Your task to perform on an android device: Go to eBay Image 0: 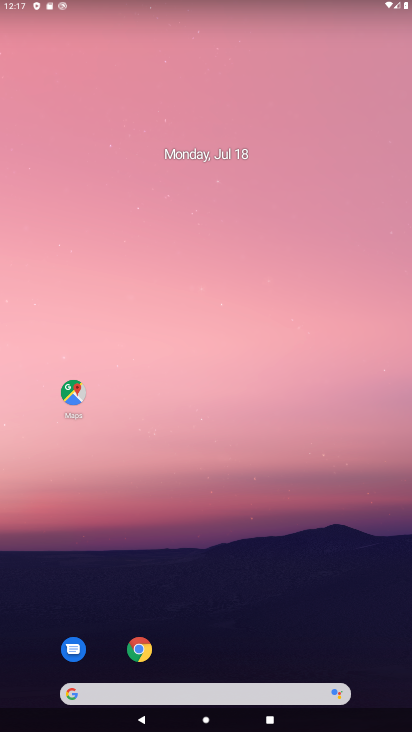
Step 0: click (177, 690)
Your task to perform on an android device: Go to eBay Image 1: 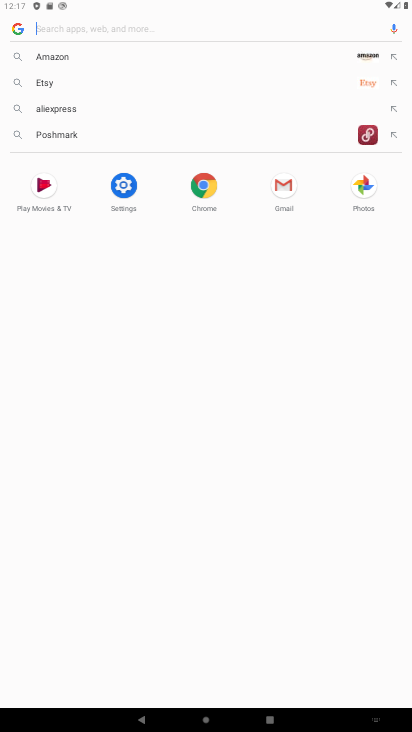
Step 1: type "eBay"
Your task to perform on an android device: Go to eBay Image 2: 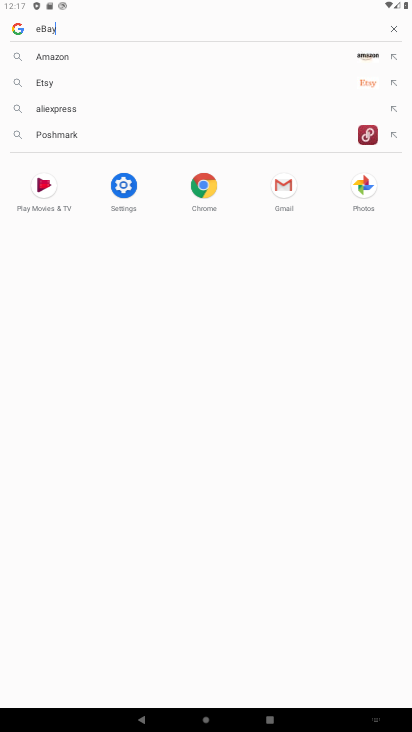
Step 2: type ""
Your task to perform on an android device: Go to eBay Image 3: 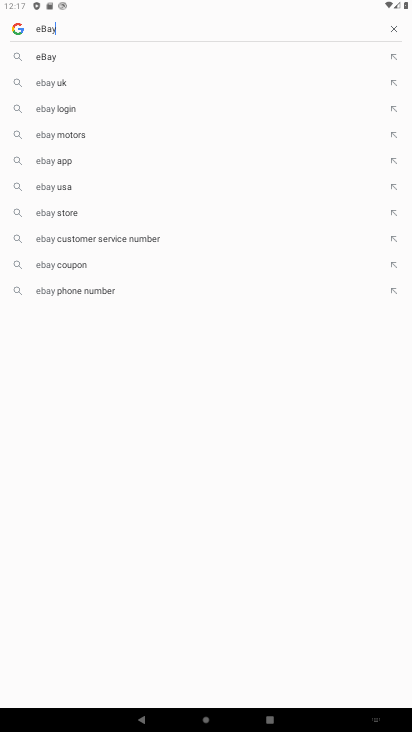
Step 3: click (45, 55)
Your task to perform on an android device: Go to eBay Image 4: 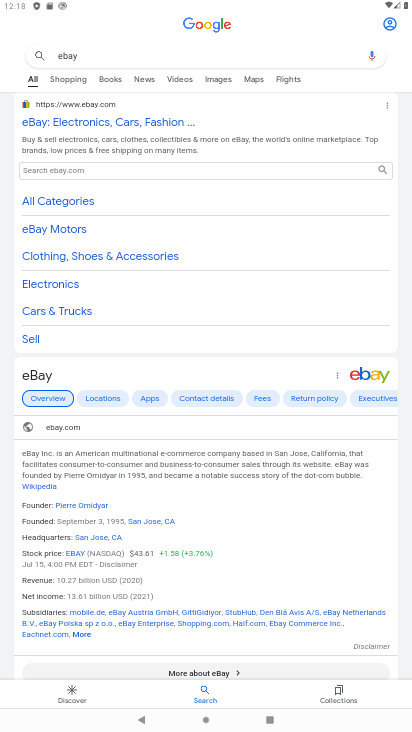
Step 4: task complete